Your task to perform on an android device: show emergency info Image 0: 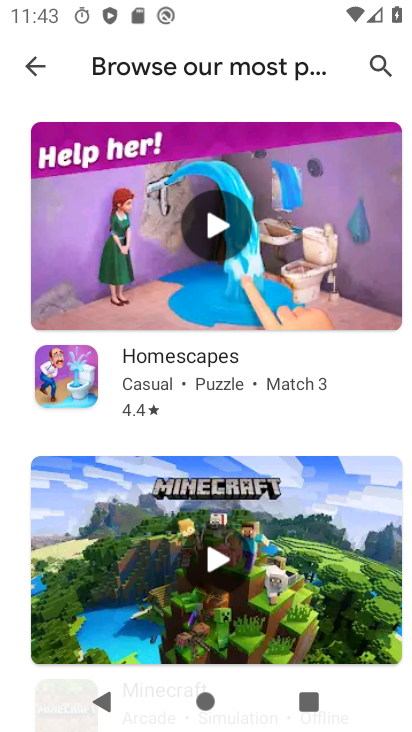
Step 0: press home button
Your task to perform on an android device: show emergency info Image 1: 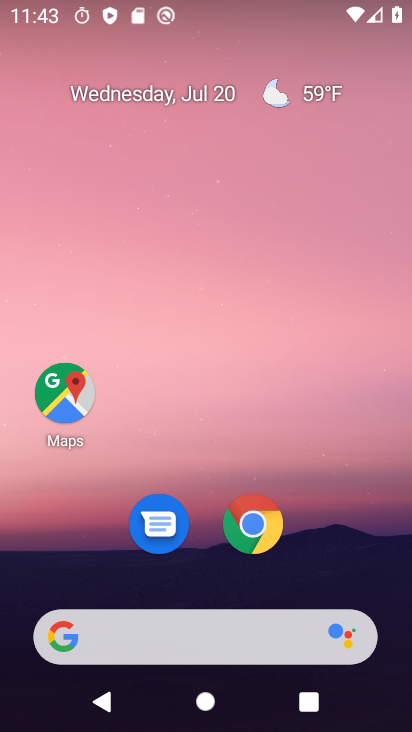
Step 1: drag from (219, 648) to (316, 1)
Your task to perform on an android device: show emergency info Image 2: 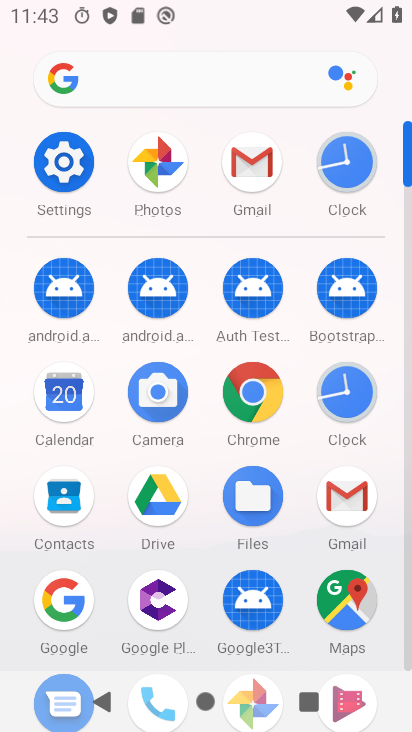
Step 2: click (68, 158)
Your task to perform on an android device: show emergency info Image 3: 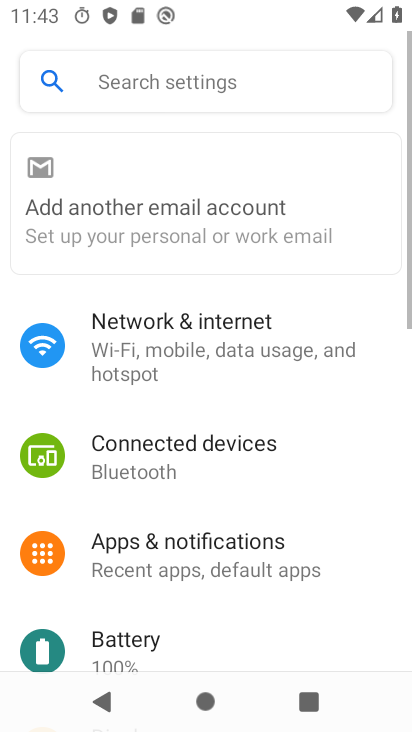
Step 3: drag from (217, 582) to (279, 58)
Your task to perform on an android device: show emergency info Image 4: 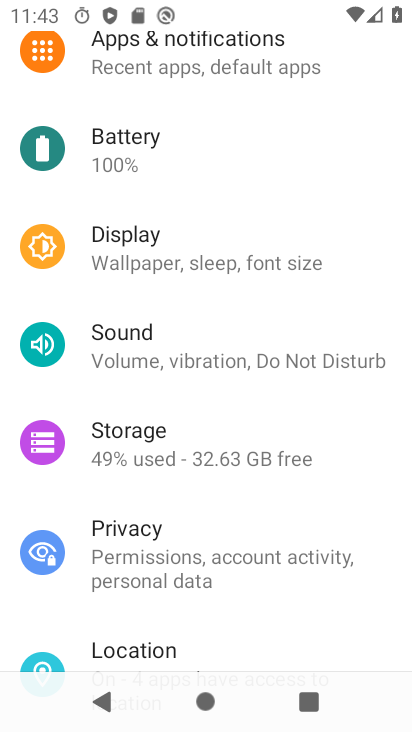
Step 4: drag from (250, 614) to (318, 6)
Your task to perform on an android device: show emergency info Image 5: 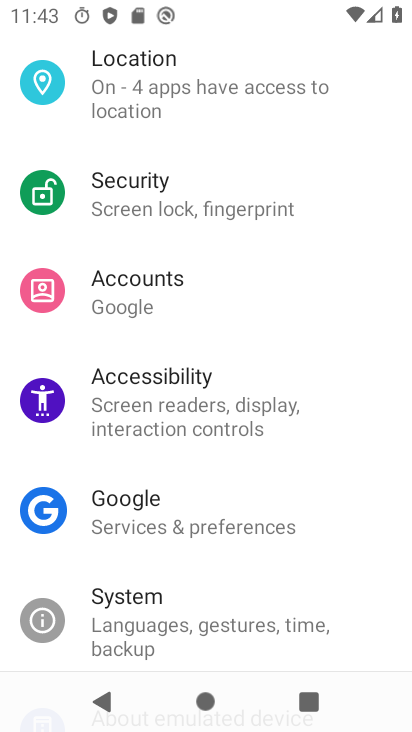
Step 5: drag from (265, 591) to (309, 81)
Your task to perform on an android device: show emergency info Image 6: 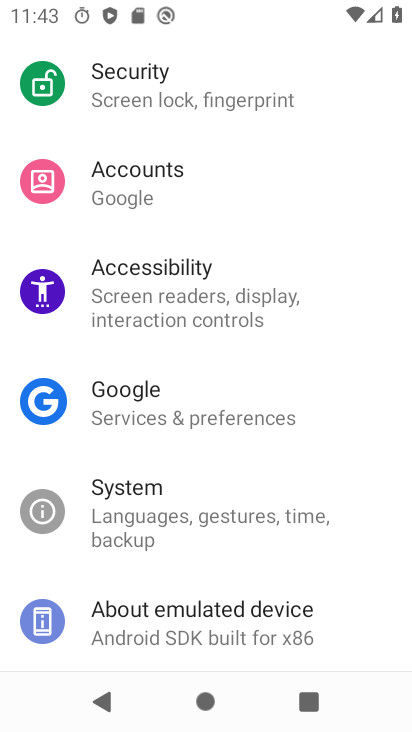
Step 6: click (207, 626)
Your task to perform on an android device: show emergency info Image 7: 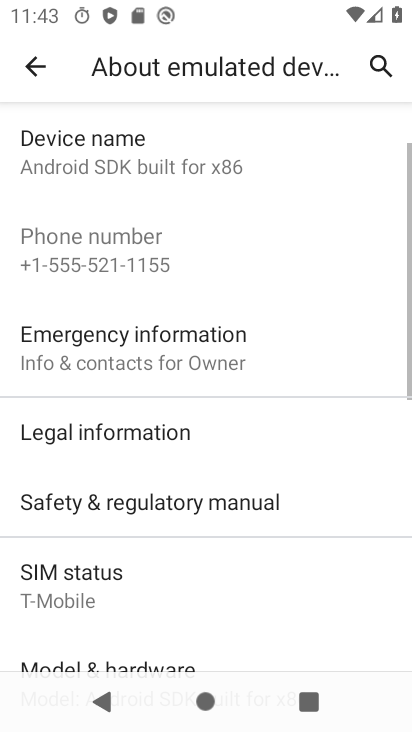
Step 7: click (172, 364)
Your task to perform on an android device: show emergency info Image 8: 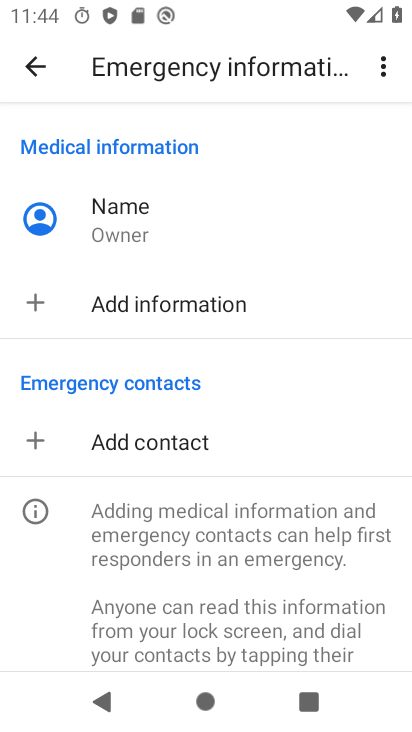
Step 8: task complete